Your task to perform on an android device: open the mobile data screen to see how much data has been used Image 0: 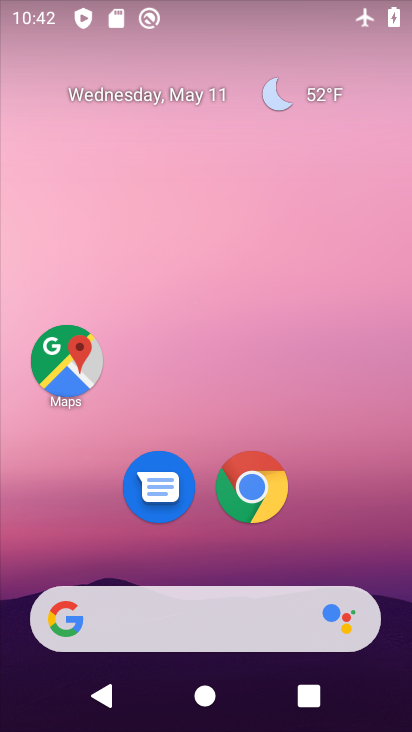
Step 0: drag from (369, 560) to (255, 54)
Your task to perform on an android device: open the mobile data screen to see how much data has been used Image 1: 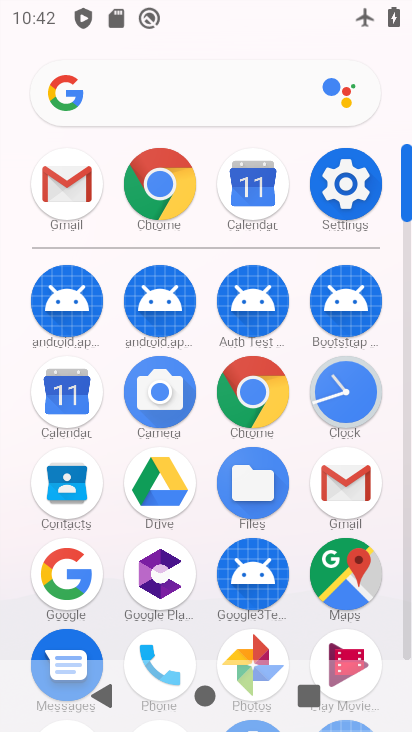
Step 1: drag from (3, 565) to (20, 267)
Your task to perform on an android device: open the mobile data screen to see how much data has been used Image 2: 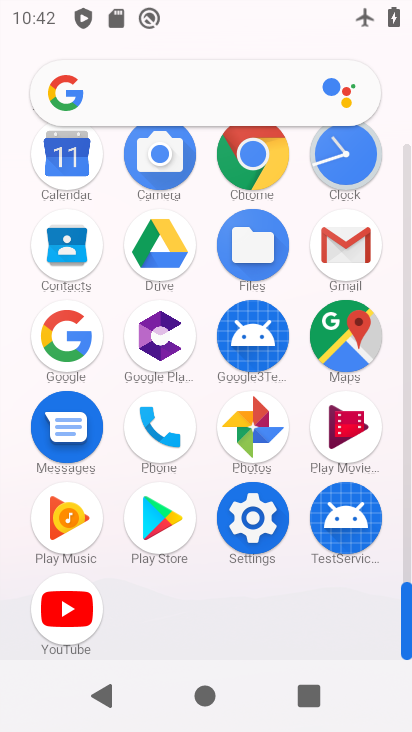
Step 2: click (253, 515)
Your task to perform on an android device: open the mobile data screen to see how much data has been used Image 3: 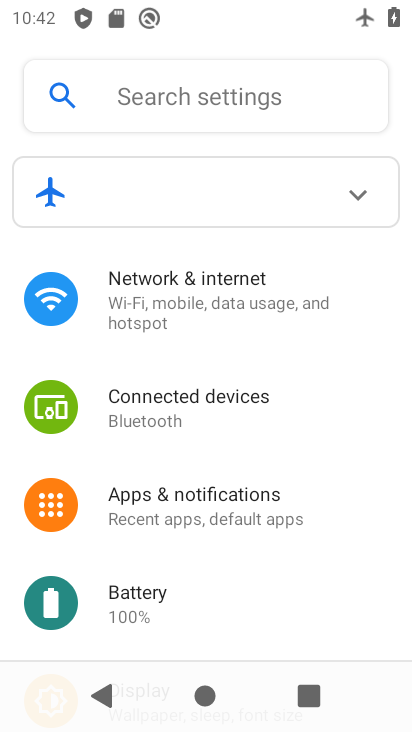
Step 3: click (191, 311)
Your task to perform on an android device: open the mobile data screen to see how much data has been used Image 4: 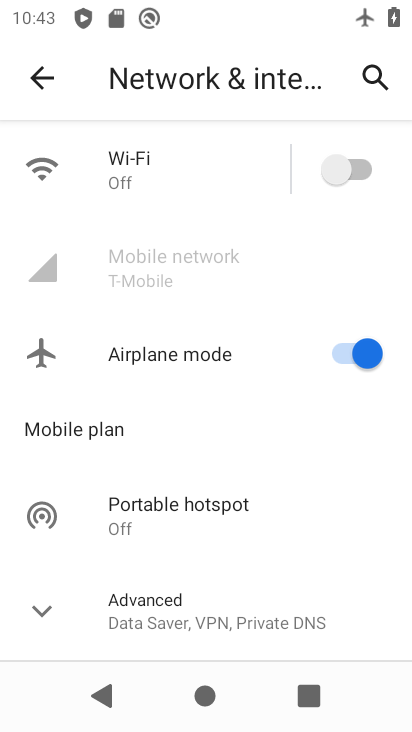
Step 4: task complete